Your task to perform on an android device: delete location history Image 0: 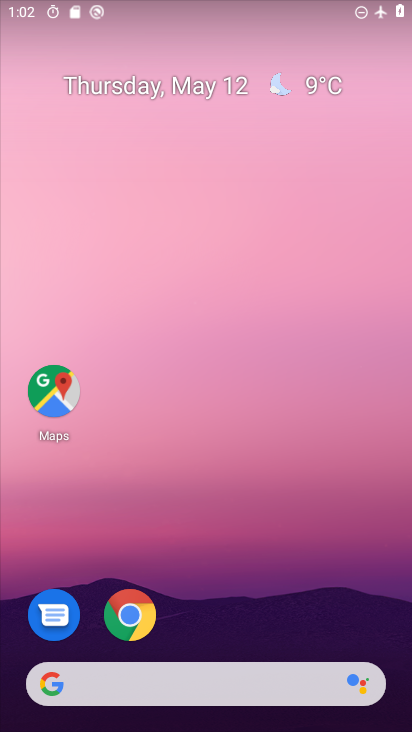
Step 0: drag from (330, 596) to (204, 28)
Your task to perform on an android device: delete location history Image 1: 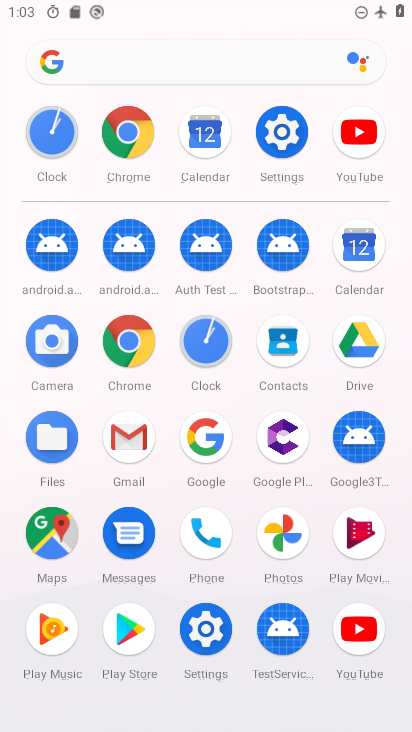
Step 1: click (40, 538)
Your task to perform on an android device: delete location history Image 2: 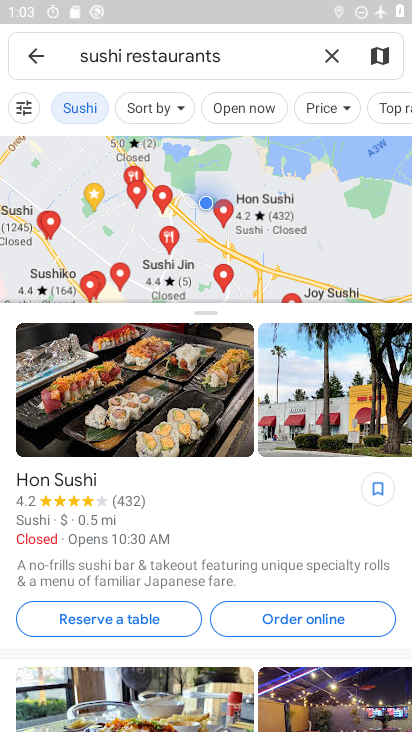
Step 2: click (37, 62)
Your task to perform on an android device: delete location history Image 3: 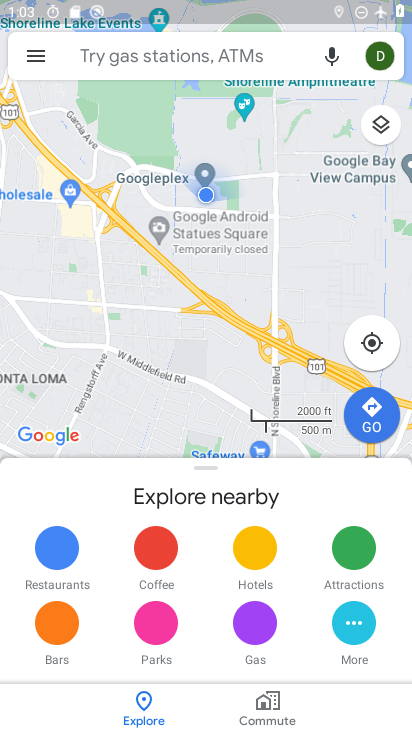
Step 3: click (37, 62)
Your task to perform on an android device: delete location history Image 4: 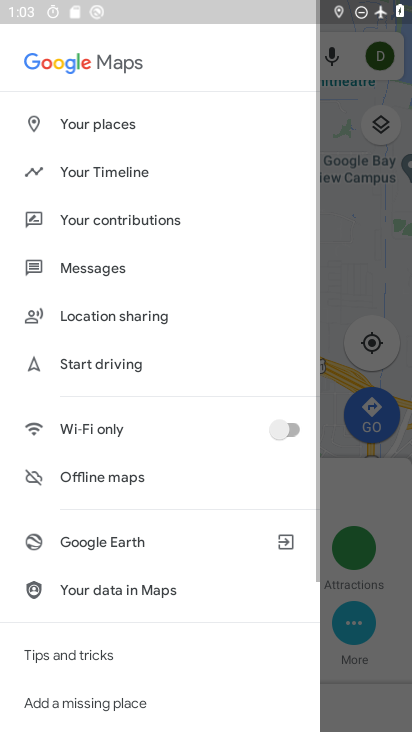
Step 4: drag from (163, 650) to (198, 247)
Your task to perform on an android device: delete location history Image 5: 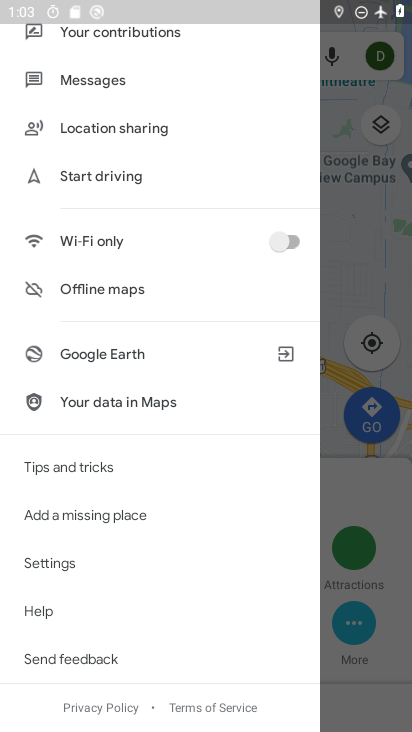
Step 5: click (72, 565)
Your task to perform on an android device: delete location history Image 6: 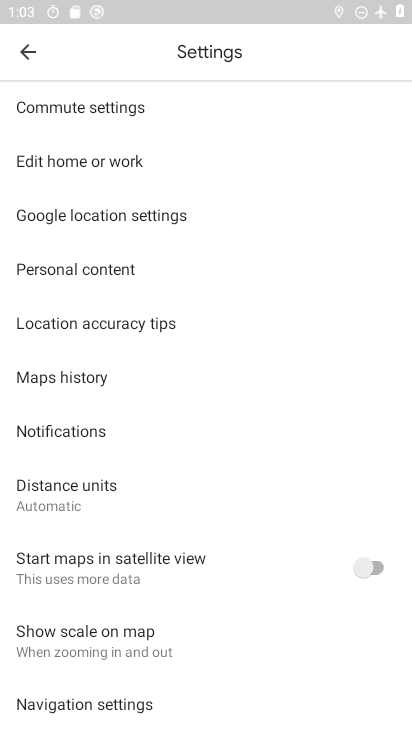
Step 6: click (82, 381)
Your task to perform on an android device: delete location history Image 7: 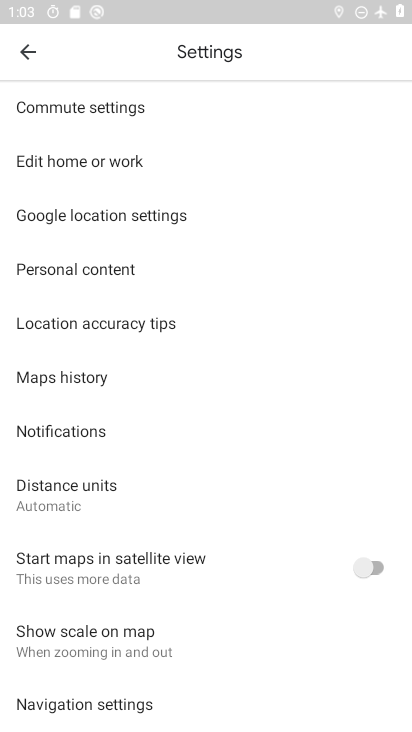
Step 7: click (92, 381)
Your task to perform on an android device: delete location history Image 8: 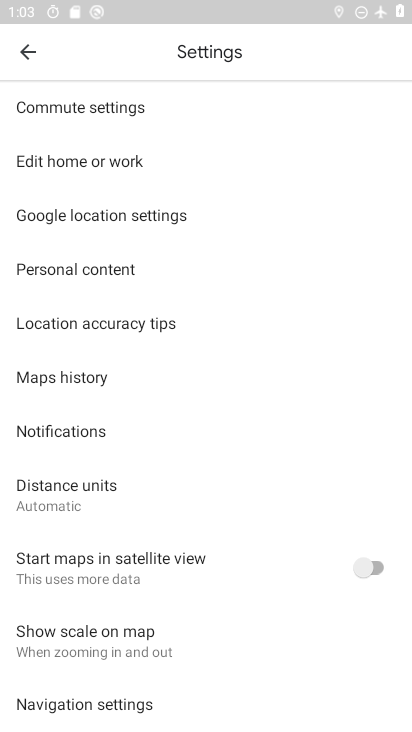
Step 8: click (92, 381)
Your task to perform on an android device: delete location history Image 9: 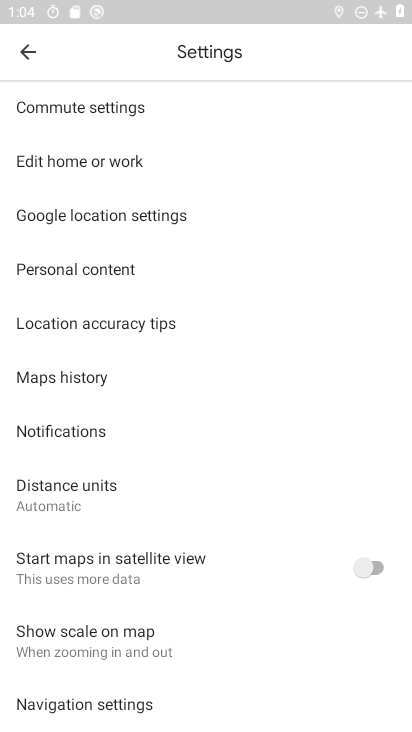
Step 9: click (111, 377)
Your task to perform on an android device: delete location history Image 10: 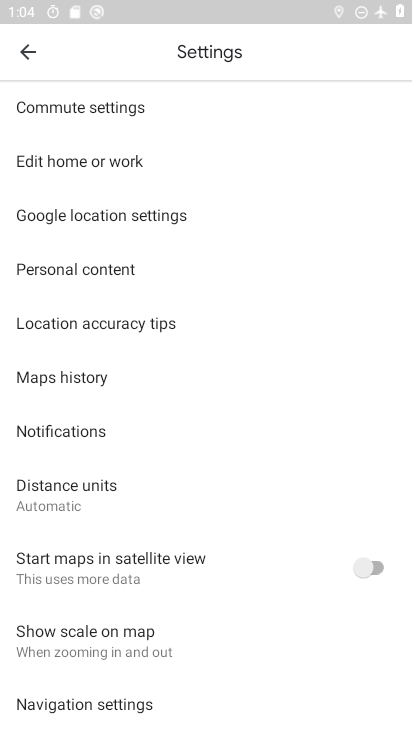
Step 10: click (71, 379)
Your task to perform on an android device: delete location history Image 11: 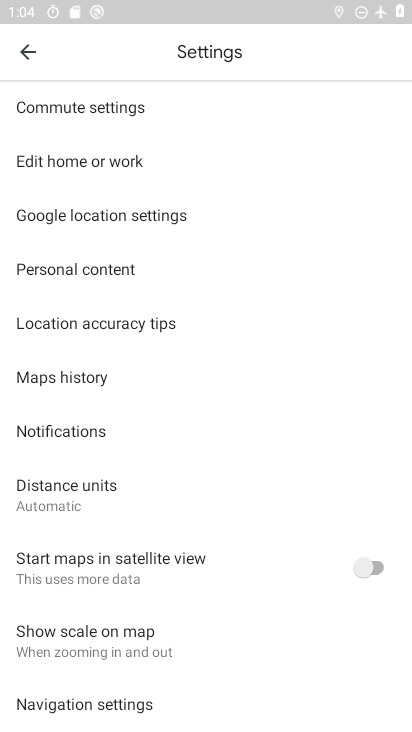
Step 11: click (47, 380)
Your task to perform on an android device: delete location history Image 12: 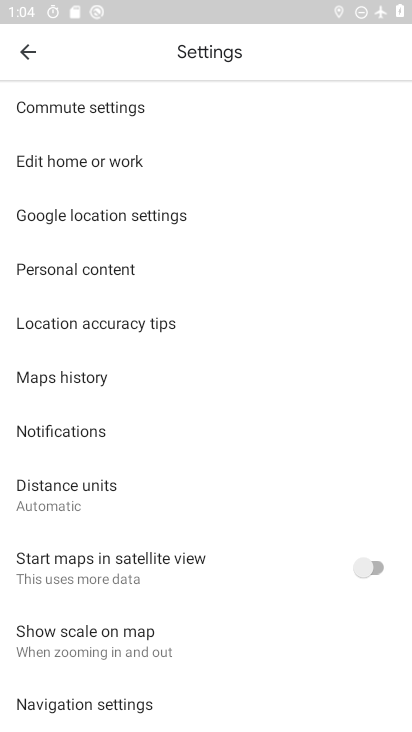
Step 12: task complete